Your task to perform on an android device: open app "Expedia: Hotels, Flights & Car" (install if not already installed) Image 0: 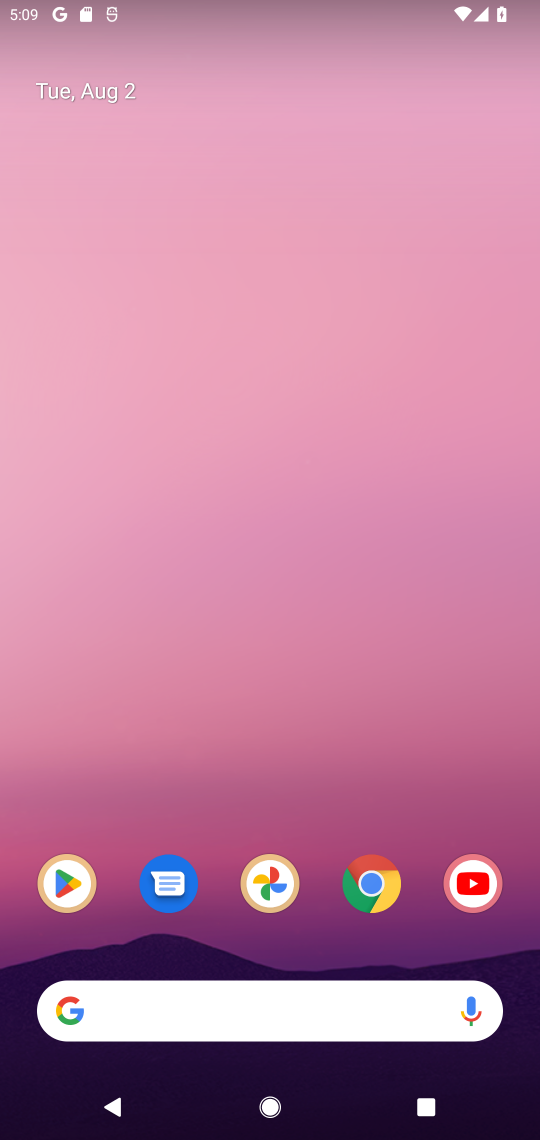
Step 0: drag from (272, 963) to (265, 29)
Your task to perform on an android device: open app "Expedia: Hotels, Flights & Car" (install if not already installed) Image 1: 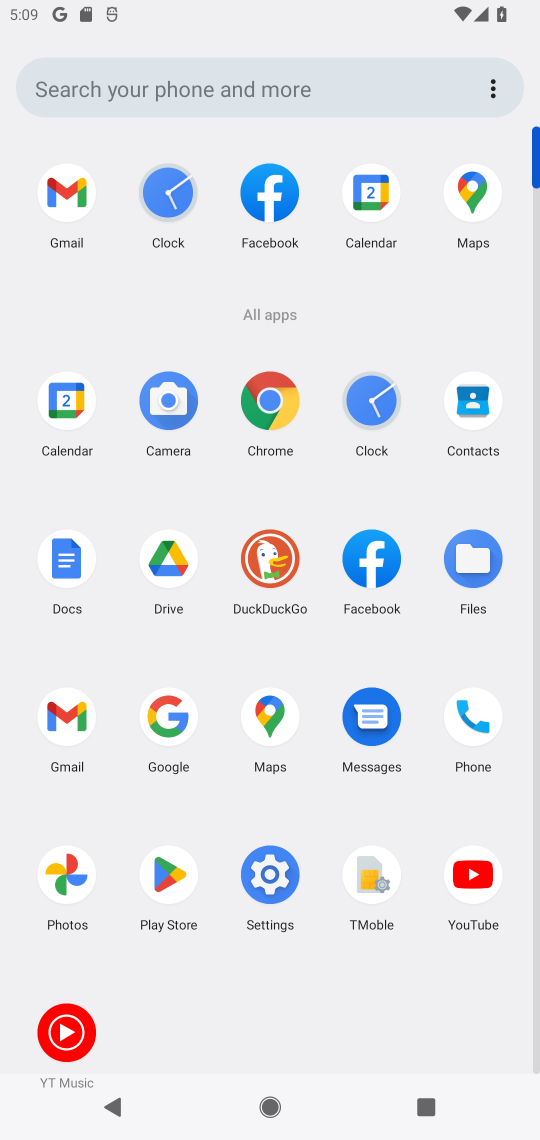
Step 1: click (159, 876)
Your task to perform on an android device: open app "Expedia: Hotels, Flights & Car" (install if not already installed) Image 2: 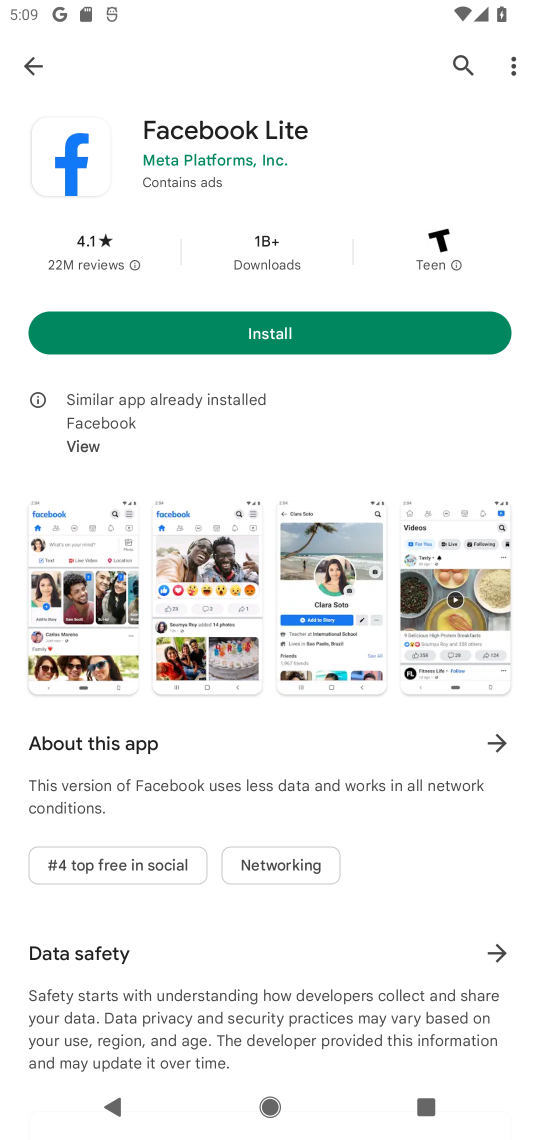
Step 2: click (37, 65)
Your task to perform on an android device: open app "Expedia: Hotels, Flights & Car" (install if not already installed) Image 3: 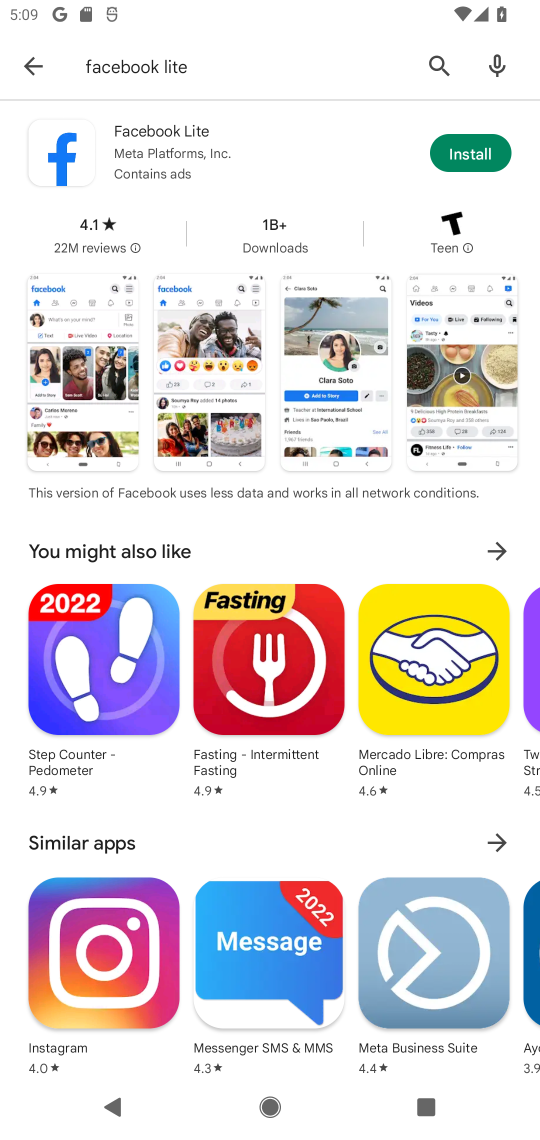
Step 3: click (35, 74)
Your task to perform on an android device: open app "Expedia: Hotels, Flights & Car" (install if not already installed) Image 4: 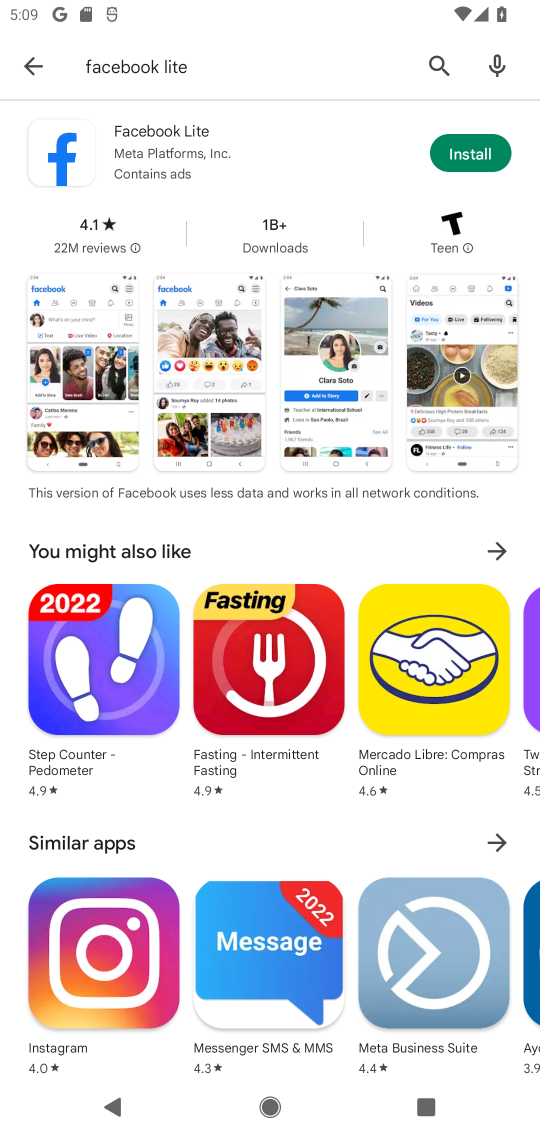
Step 4: click (34, 69)
Your task to perform on an android device: open app "Expedia: Hotels, Flights & Car" (install if not already installed) Image 5: 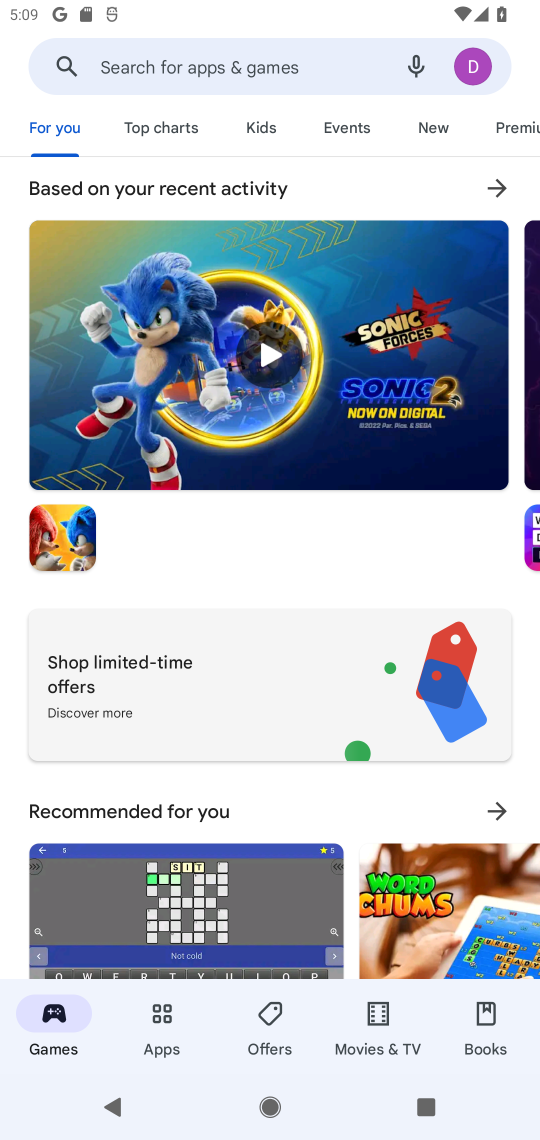
Step 5: click (119, 59)
Your task to perform on an android device: open app "Expedia: Hotels, Flights & Car" (install if not already installed) Image 6: 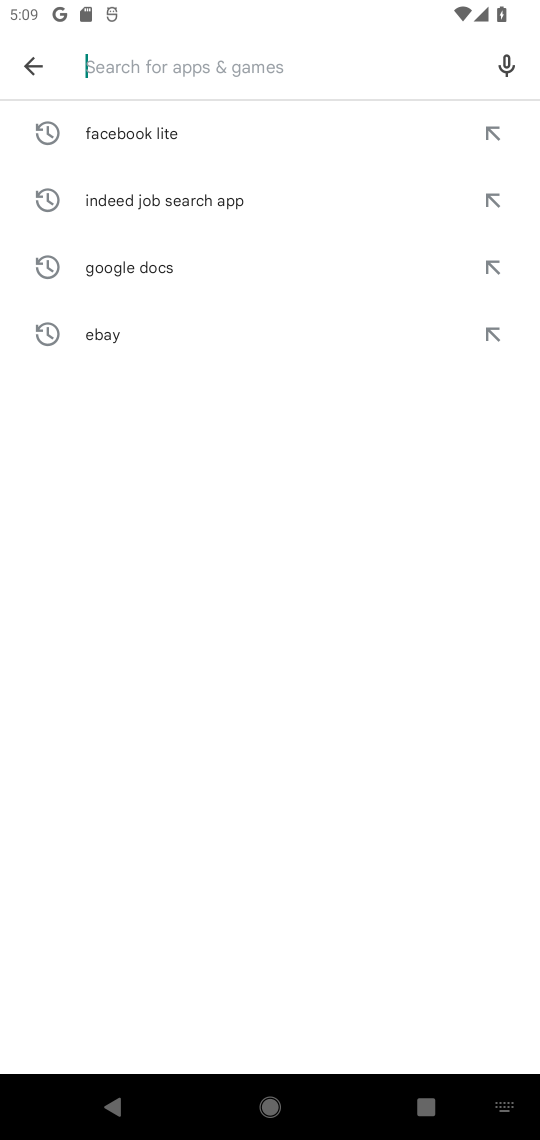
Step 6: type "Expedia: Hotels, Flights & Car"
Your task to perform on an android device: open app "Expedia: Hotels, Flights & Car" (install if not already installed) Image 7: 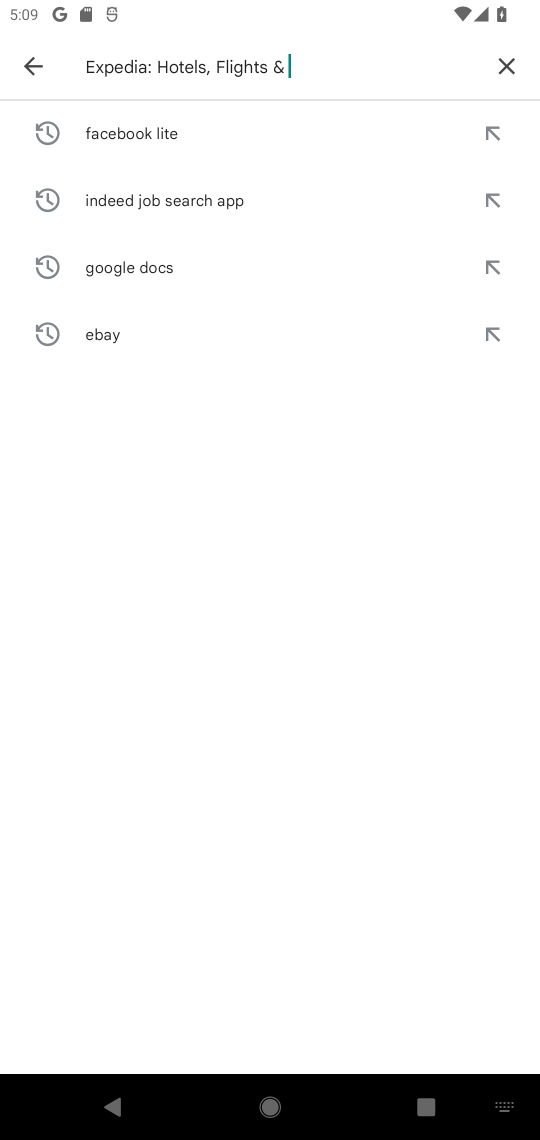
Step 7: type ""
Your task to perform on an android device: open app "Expedia: Hotels, Flights & Car" (install if not already installed) Image 8: 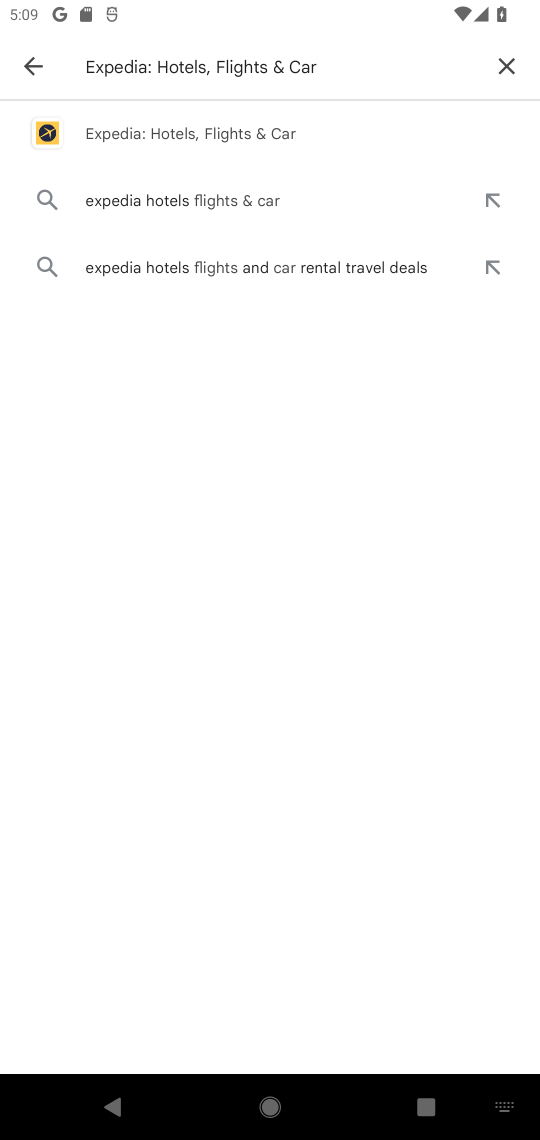
Step 8: click (159, 142)
Your task to perform on an android device: open app "Expedia: Hotels, Flights & Car" (install if not already installed) Image 9: 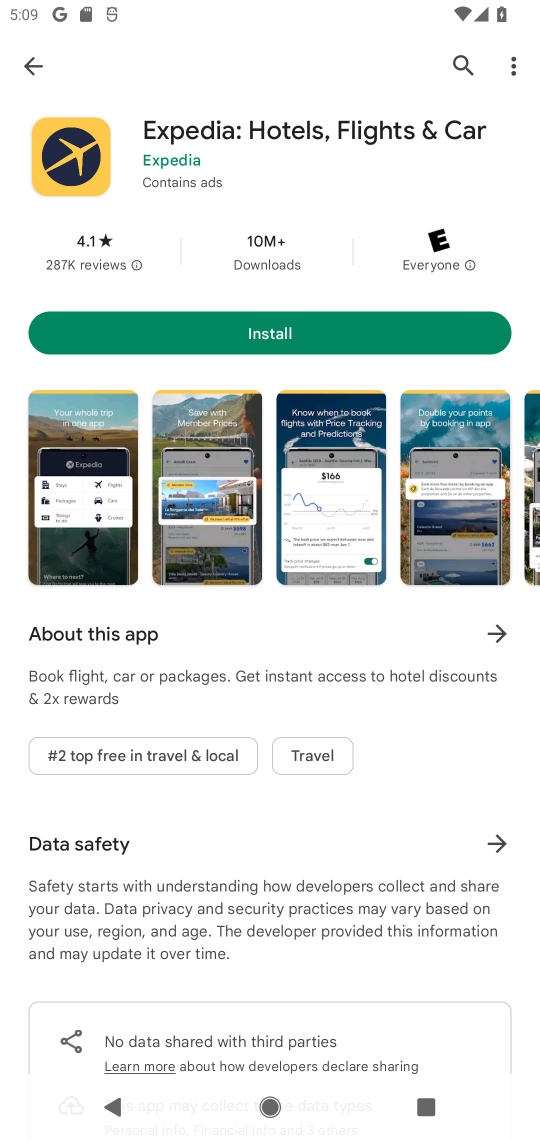
Step 9: click (251, 349)
Your task to perform on an android device: open app "Expedia: Hotels, Flights & Car" (install if not already installed) Image 10: 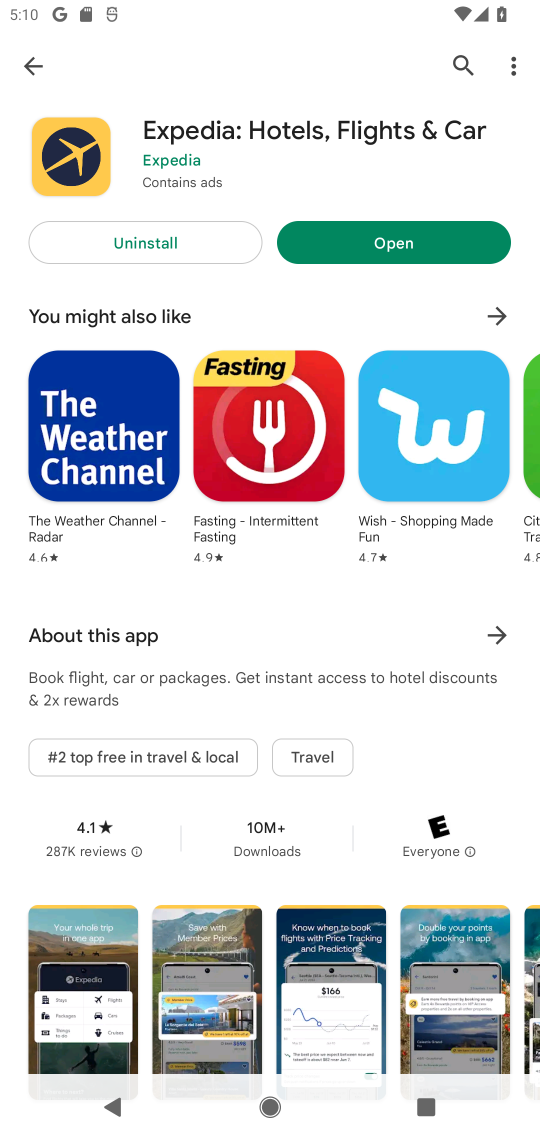
Step 10: click (433, 252)
Your task to perform on an android device: open app "Expedia: Hotels, Flights & Car" (install if not already installed) Image 11: 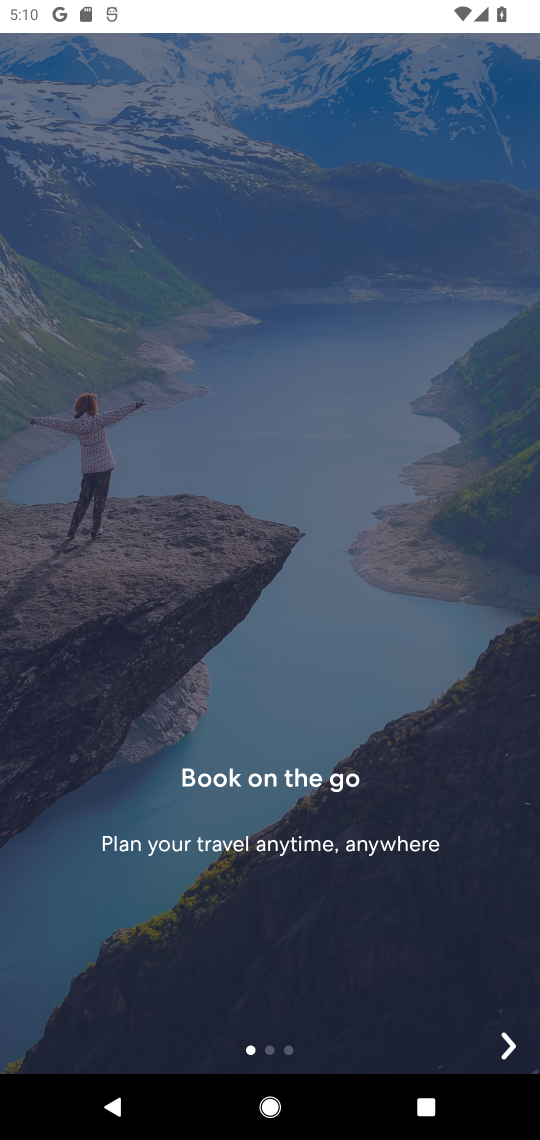
Step 11: task complete